Your task to perform on an android device: change text size in settings app Image 0: 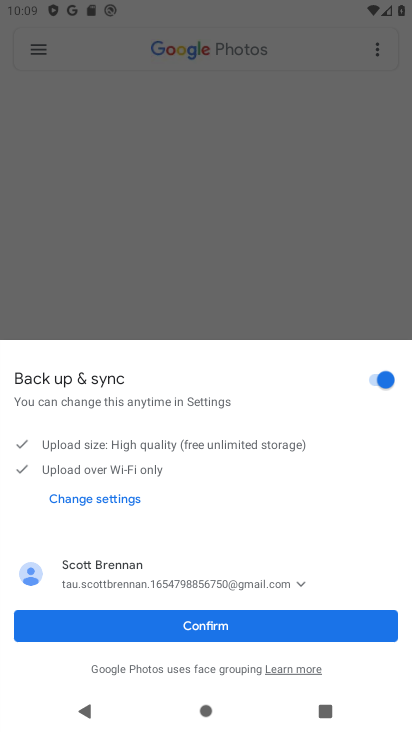
Step 0: press home button
Your task to perform on an android device: change text size in settings app Image 1: 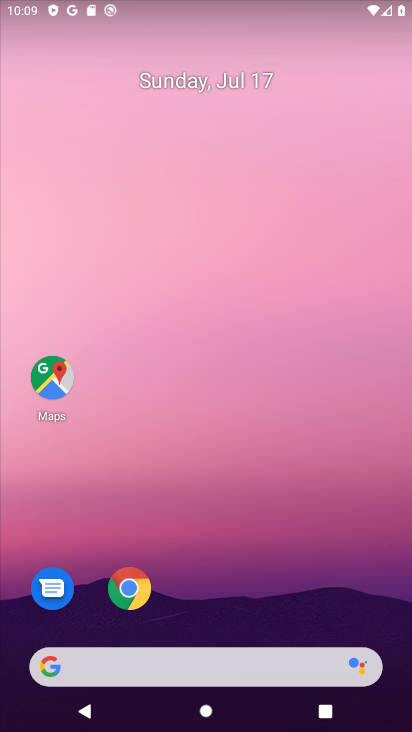
Step 1: drag from (249, 616) to (225, 146)
Your task to perform on an android device: change text size in settings app Image 2: 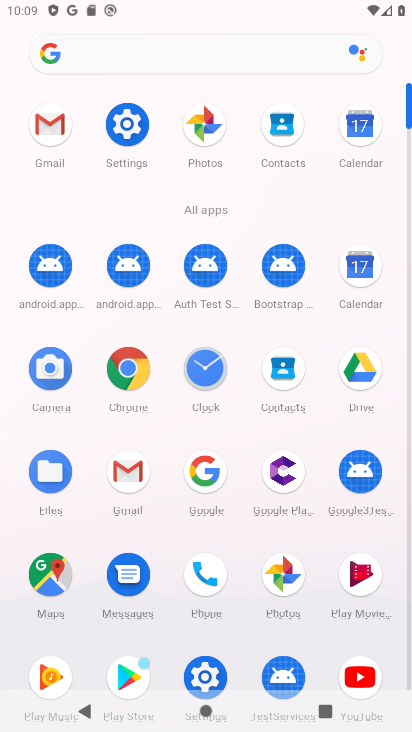
Step 2: click (126, 123)
Your task to perform on an android device: change text size in settings app Image 3: 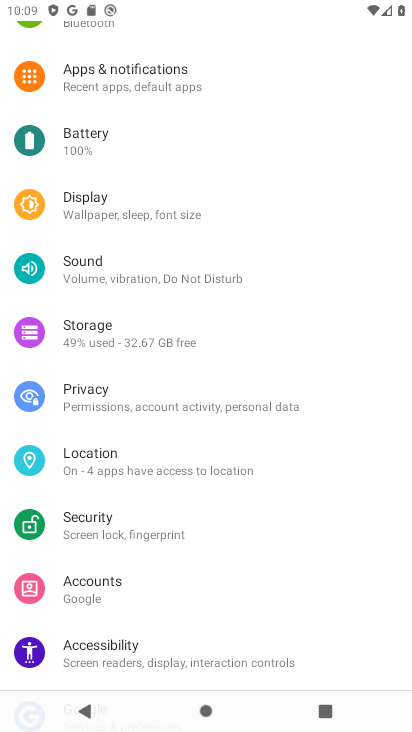
Step 3: click (138, 207)
Your task to perform on an android device: change text size in settings app Image 4: 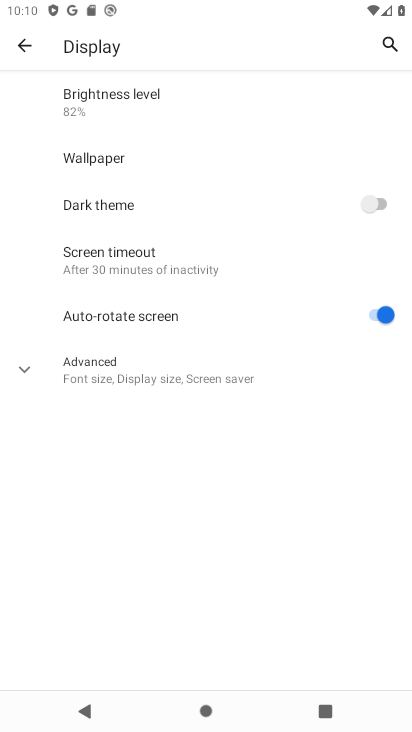
Step 4: click (220, 363)
Your task to perform on an android device: change text size in settings app Image 5: 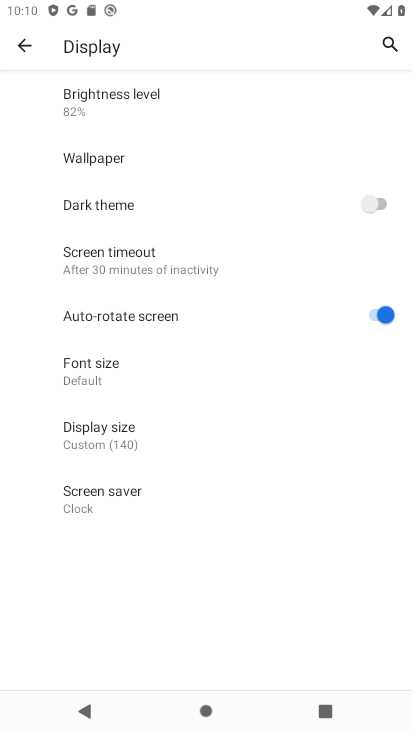
Step 5: click (213, 363)
Your task to perform on an android device: change text size in settings app Image 6: 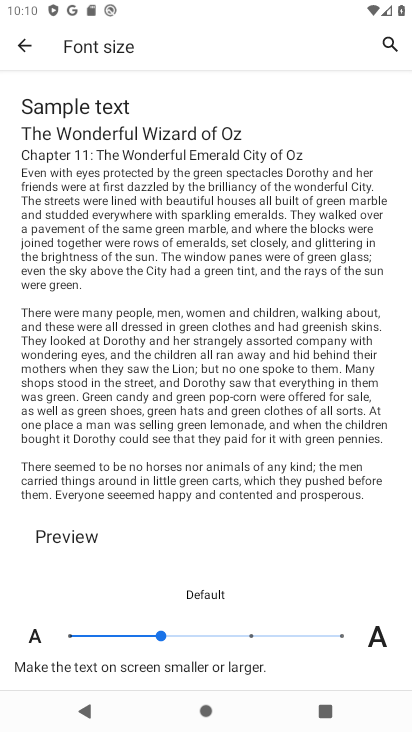
Step 6: click (214, 626)
Your task to perform on an android device: change text size in settings app Image 7: 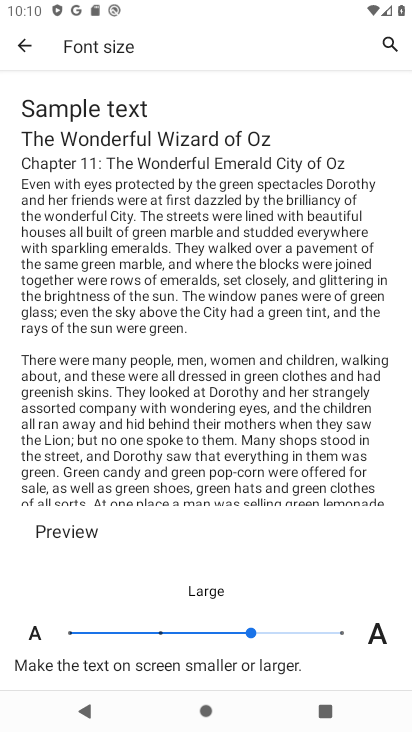
Step 7: task complete